Your task to perform on an android device: move a message to another label in the gmail app Image 0: 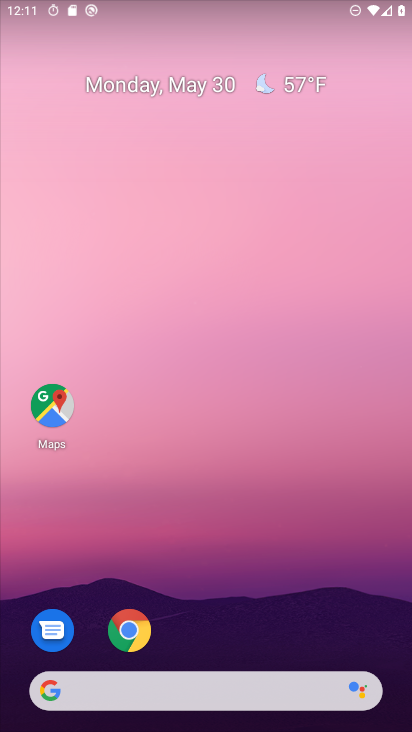
Step 0: drag from (332, 724) to (248, 169)
Your task to perform on an android device: move a message to another label in the gmail app Image 1: 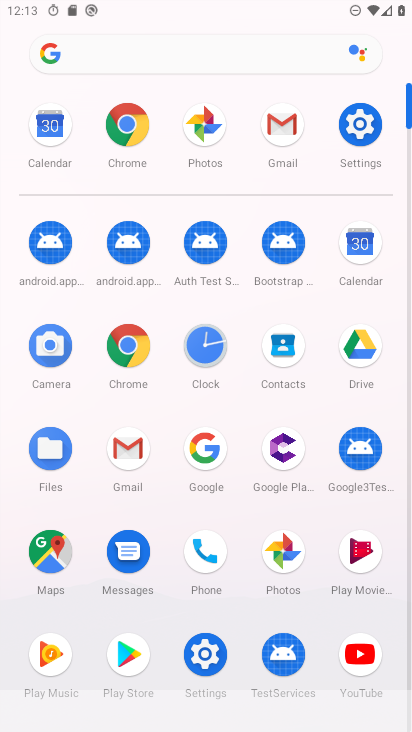
Step 1: click (121, 451)
Your task to perform on an android device: move a message to another label in the gmail app Image 2: 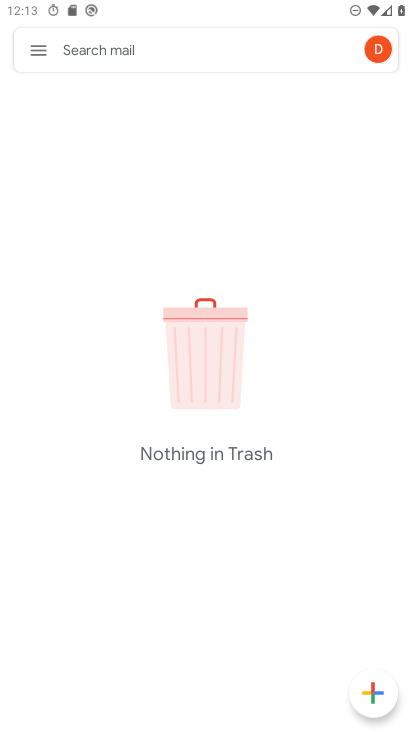
Step 2: click (44, 56)
Your task to perform on an android device: move a message to another label in the gmail app Image 3: 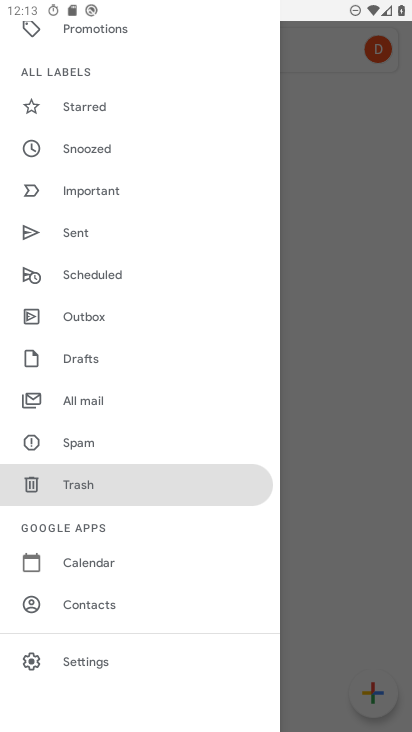
Step 3: click (105, 655)
Your task to perform on an android device: move a message to another label in the gmail app Image 4: 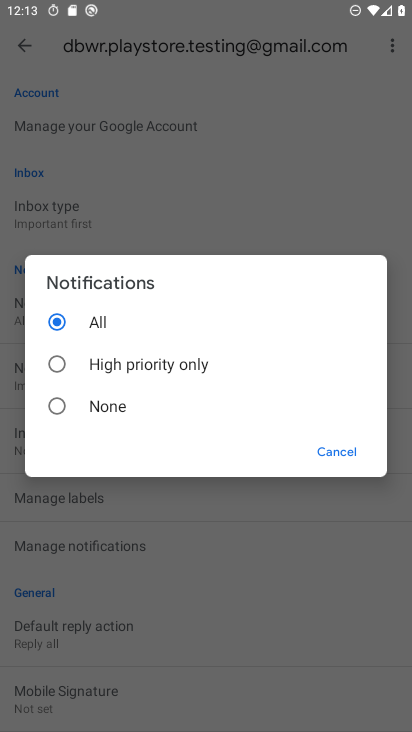
Step 4: click (358, 445)
Your task to perform on an android device: move a message to another label in the gmail app Image 5: 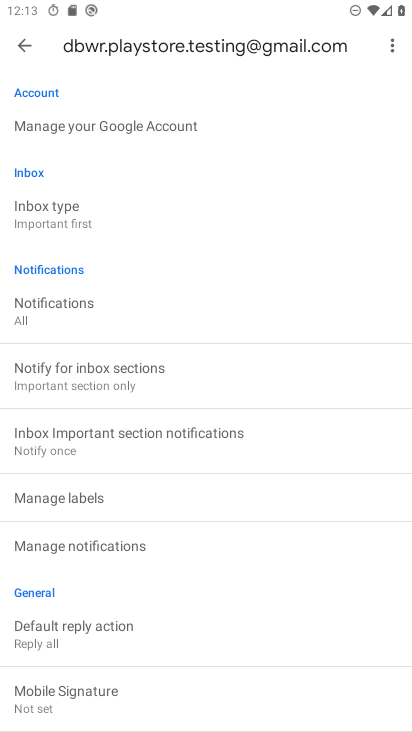
Step 5: click (85, 495)
Your task to perform on an android device: move a message to another label in the gmail app Image 6: 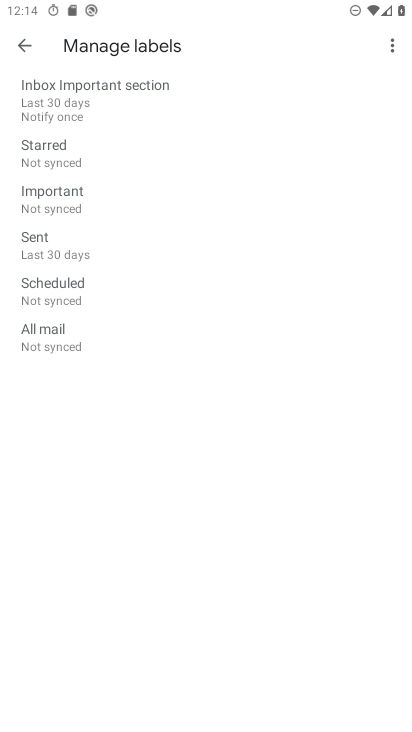
Step 6: task complete